Your task to perform on an android device: Open battery settings Image 0: 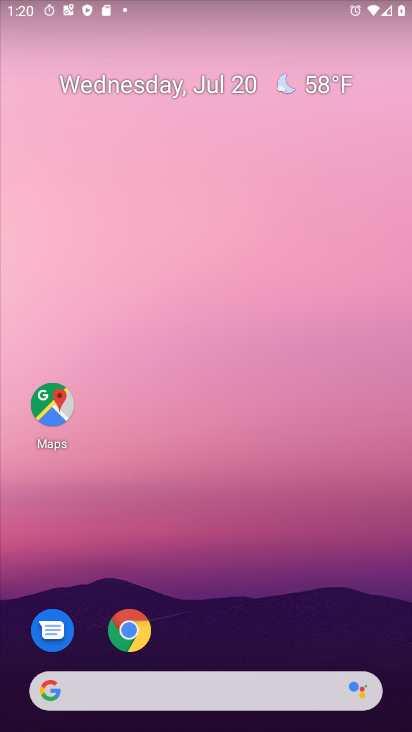
Step 0: press home button
Your task to perform on an android device: Open battery settings Image 1: 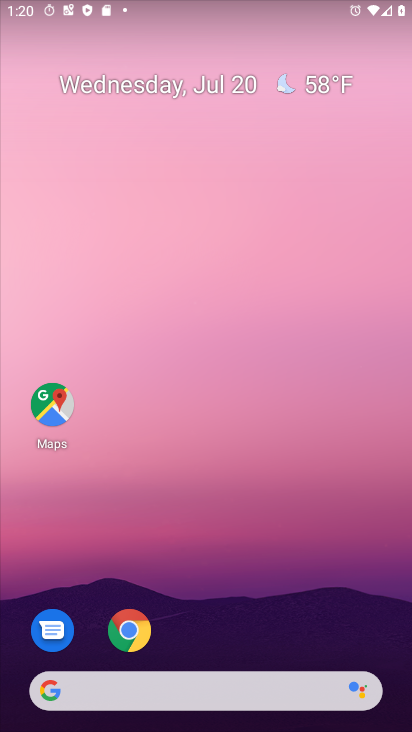
Step 1: drag from (184, 687) to (276, 19)
Your task to perform on an android device: Open battery settings Image 2: 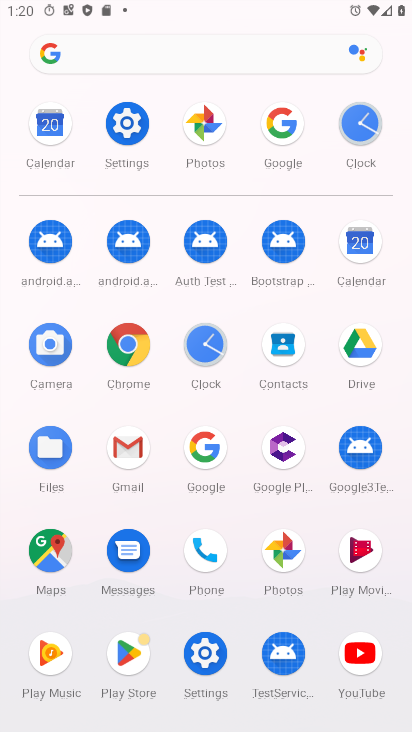
Step 2: click (131, 123)
Your task to perform on an android device: Open battery settings Image 3: 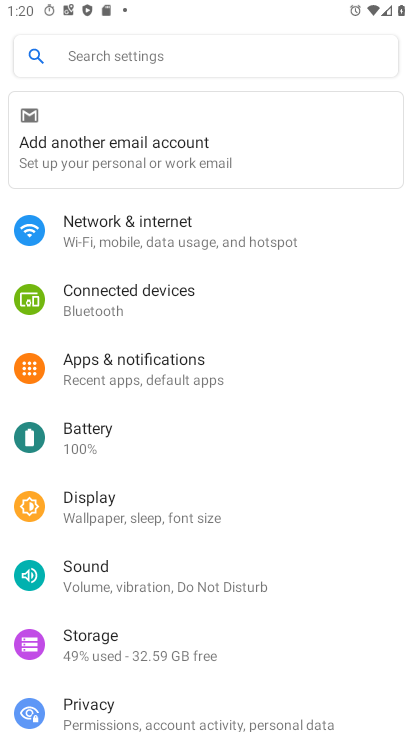
Step 3: click (97, 436)
Your task to perform on an android device: Open battery settings Image 4: 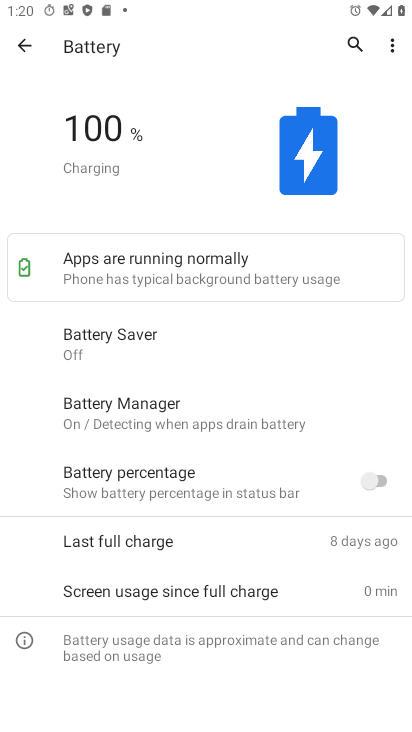
Step 4: task complete